Your task to perform on an android device: Open ESPN.com Image 0: 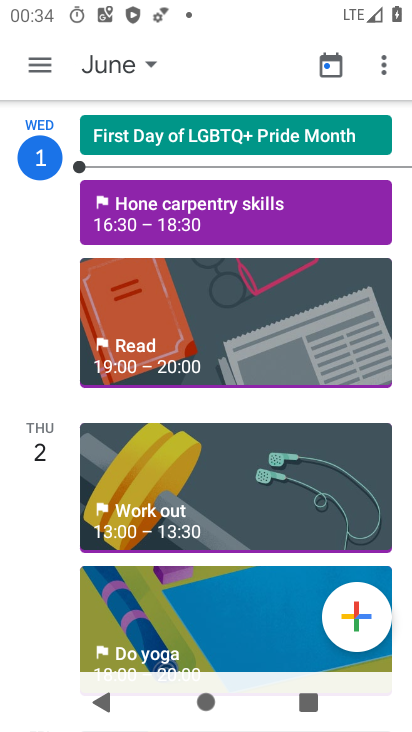
Step 0: press home button
Your task to perform on an android device: Open ESPN.com Image 1: 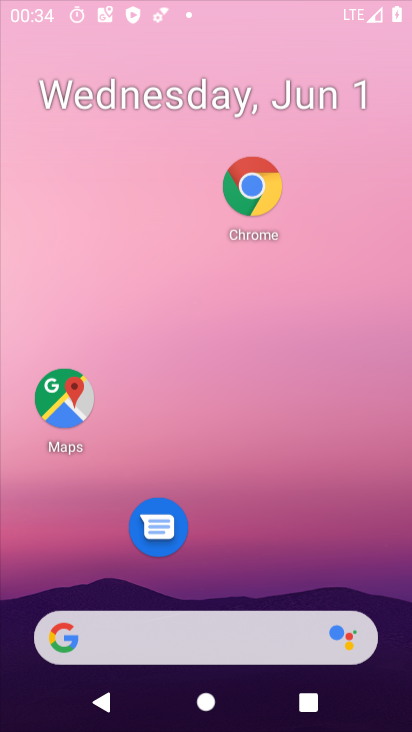
Step 1: drag from (205, 565) to (262, 88)
Your task to perform on an android device: Open ESPN.com Image 2: 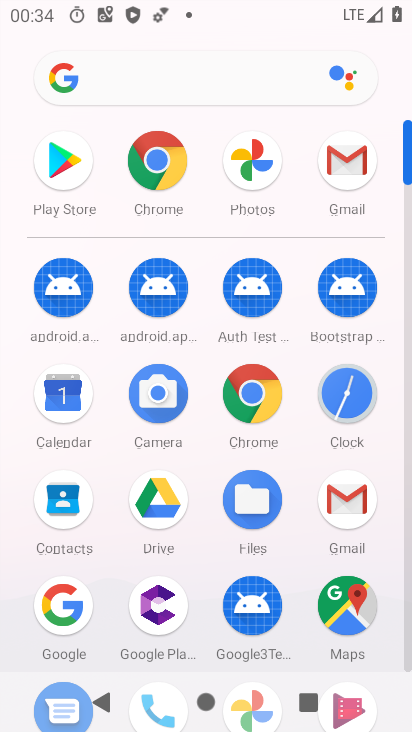
Step 2: click (142, 81)
Your task to perform on an android device: Open ESPN.com Image 3: 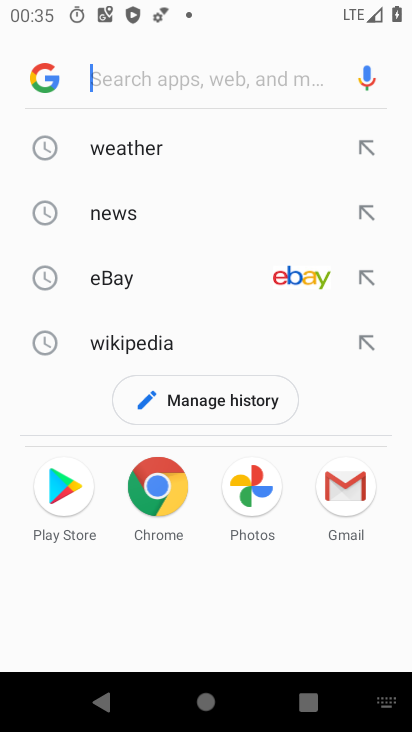
Step 3: click (126, 84)
Your task to perform on an android device: Open ESPN.com Image 4: 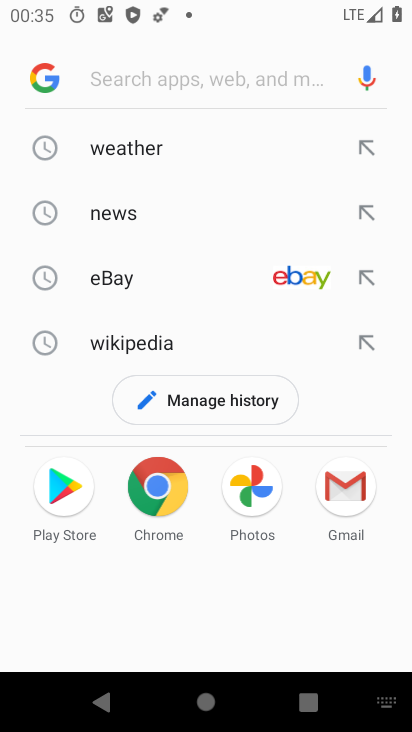
Step 4: type "ESPN.com"
Your task to perform on an android device: Open ESPN.com Image 5: 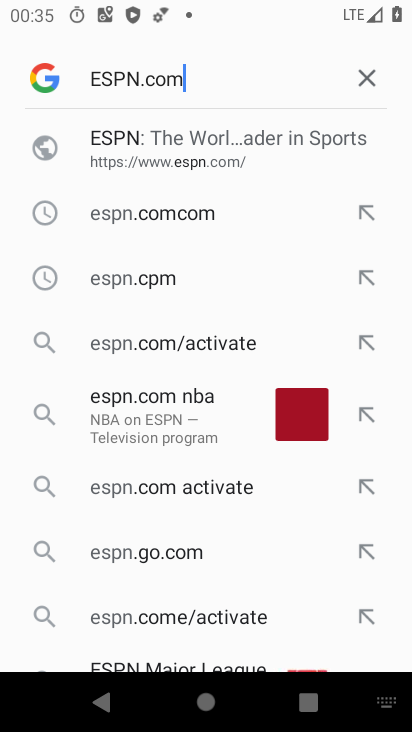
Step 5: type ""
Your task to perform on an android device: Open ESPN.com Image 6: 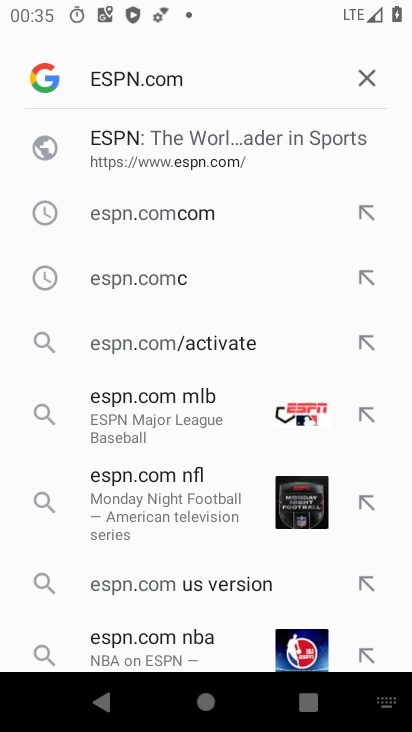
Step 6: click (170, 134)
Your task to perform on an android device: Open ESPN.com Image 7: 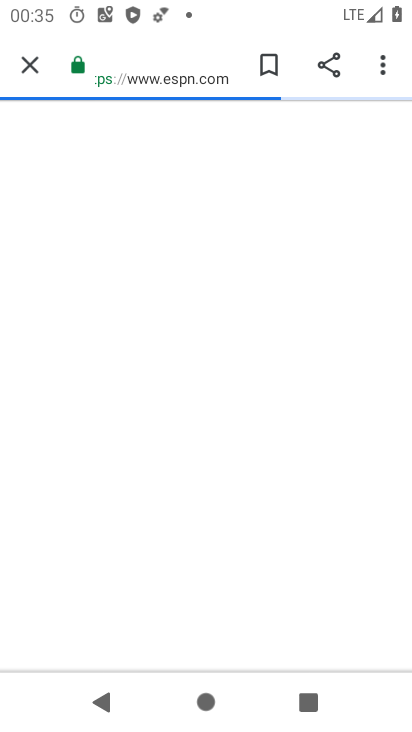
Step 7: task complete